Your task to perform on an android device: What's the weather? Image 0: 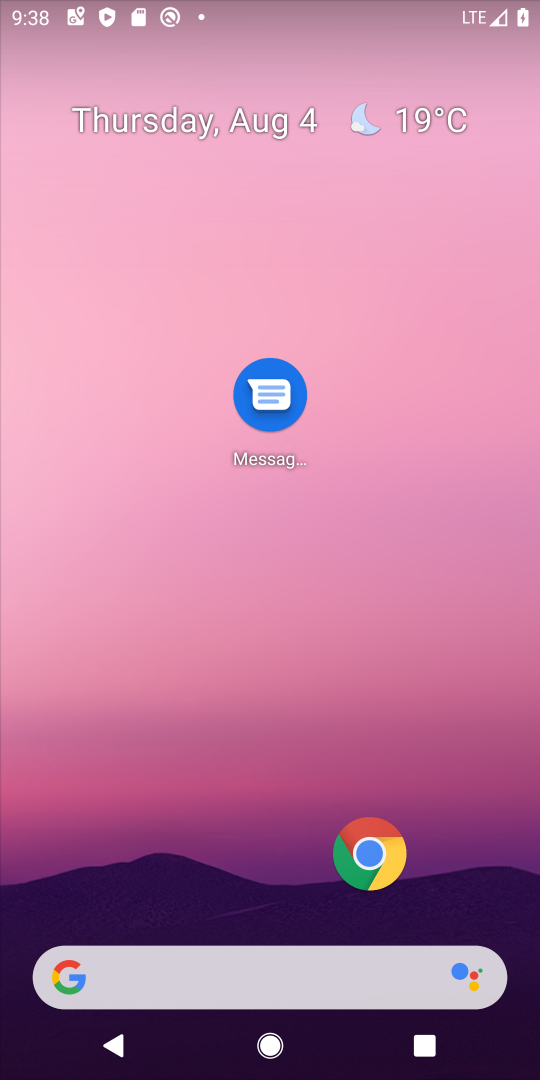
Step 0: drag from (269, 933) to (213, 99)
Your task to perform on an android device: What's the weather? Image 1: 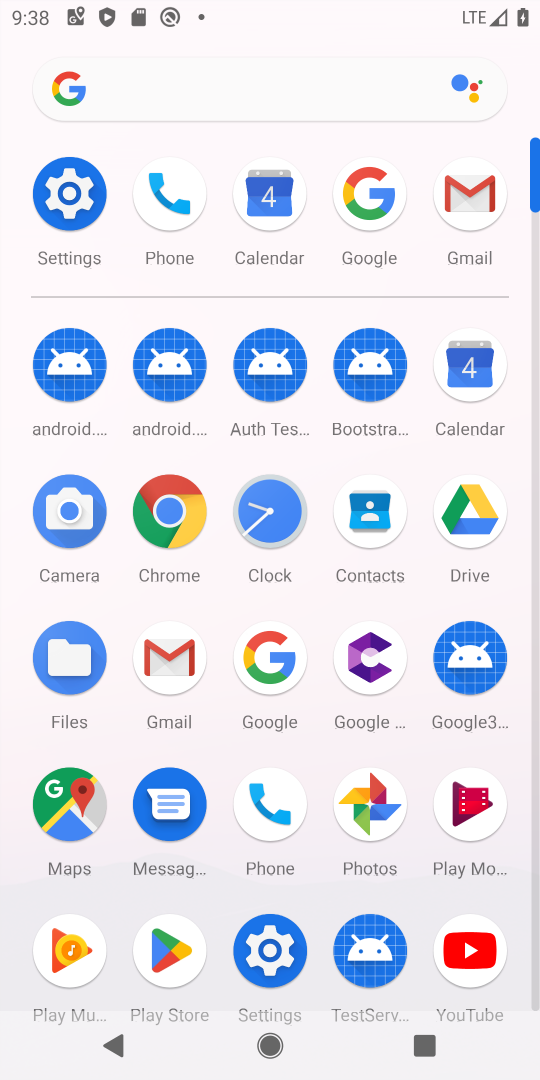
Step 1: click (368, 187)
Your task to perform on an android device: What's the weather? Image 2: 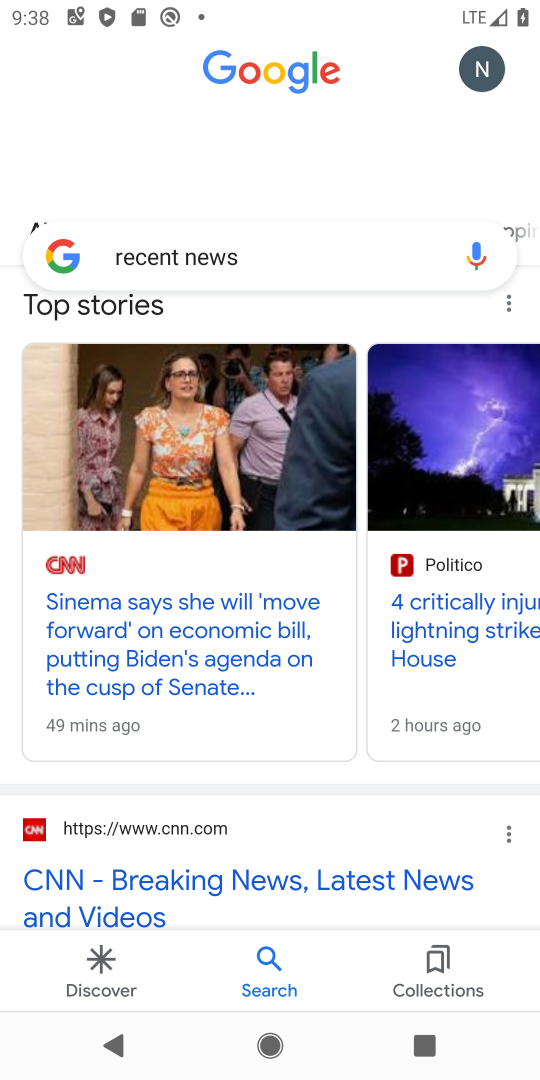
Step 2: click (288, 256)
Your task to perform on an android device: What's the weather? Image 3: 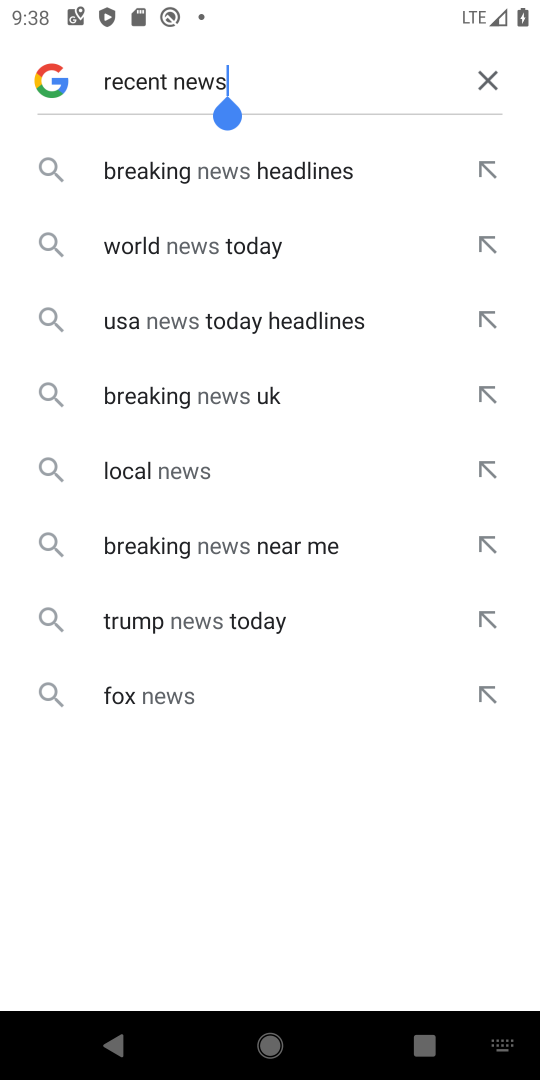
Step 3: click (476, 79)
Your task to perform on an android device: What's the weather? Image 4: 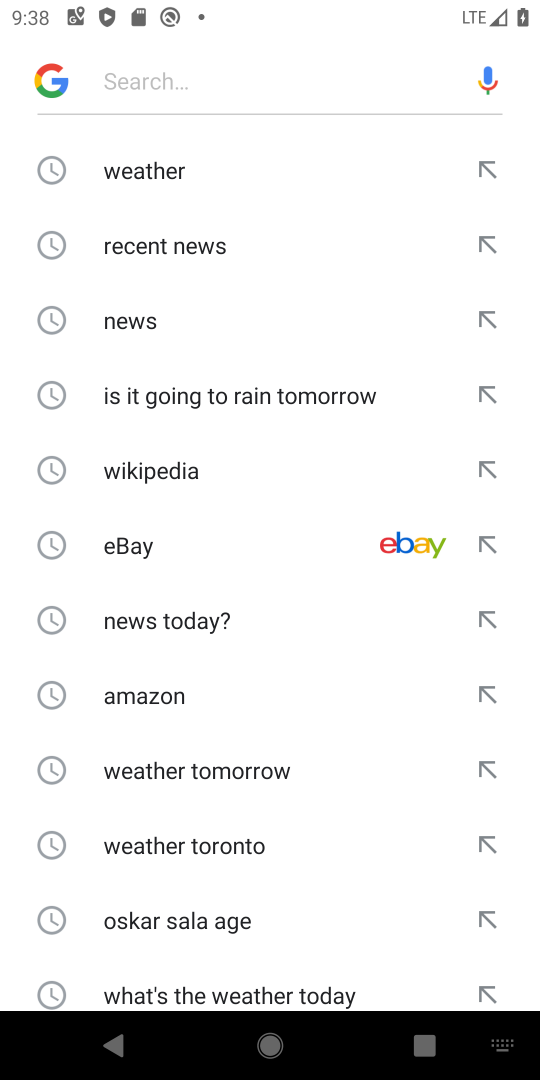
Step 4: click (142, 190)
Your task to perform on an android device: What's the weather? Image 5: 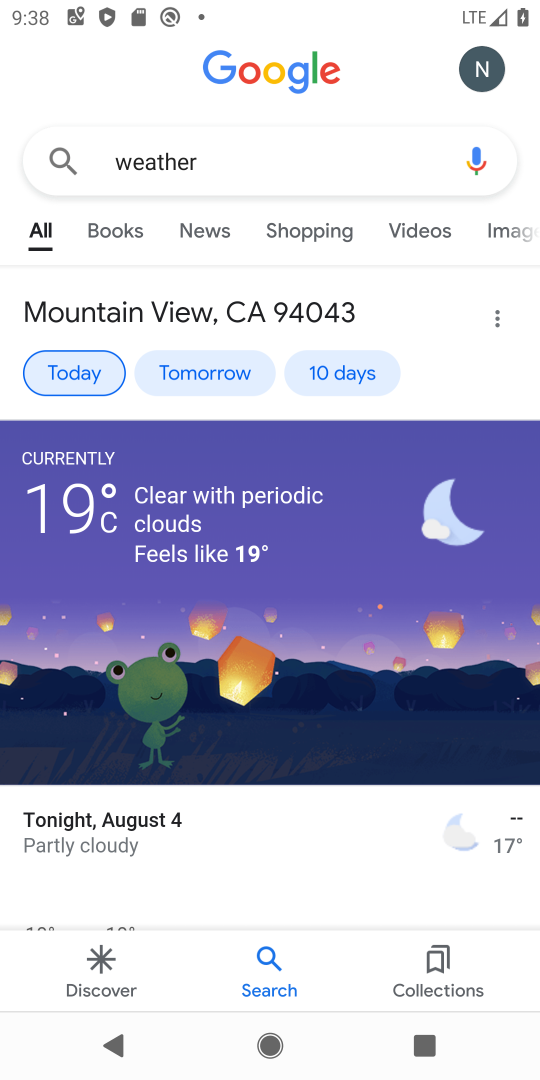
Step 5: task complete